Your task to perform on an android device: Show me recent news Image 0: 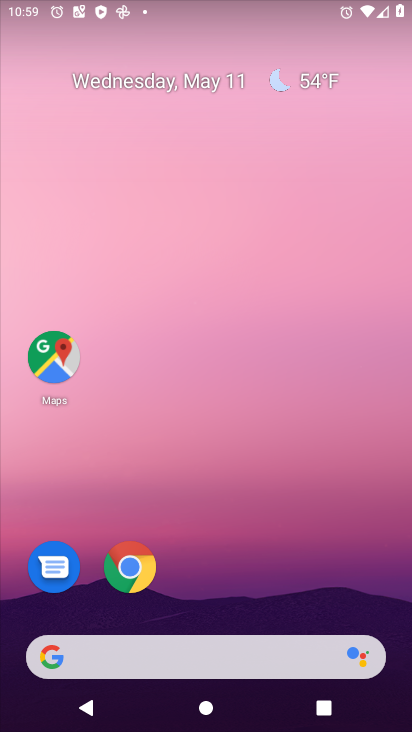
Step 0: drag from (204, 606) to (291, 12)
Your task to perform on an android device: Show me recent news Image 1: 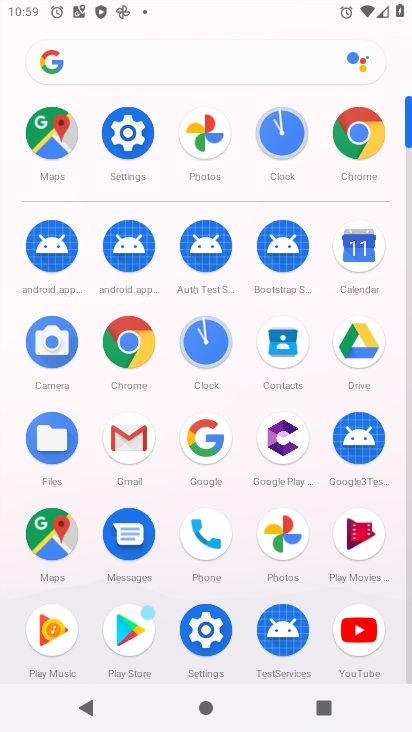
Step 1: click (172, 52)
Your task to perform on an android device: Show me recent news Image 2: 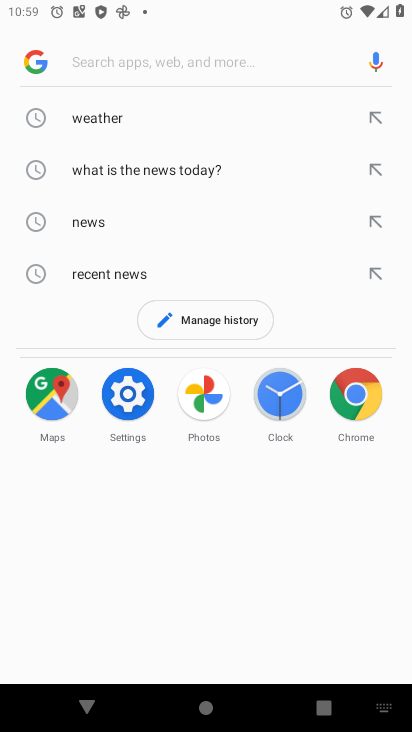
Step 2: type "recent news"
Your task to perform on an android device: Show me recent news Image 3: 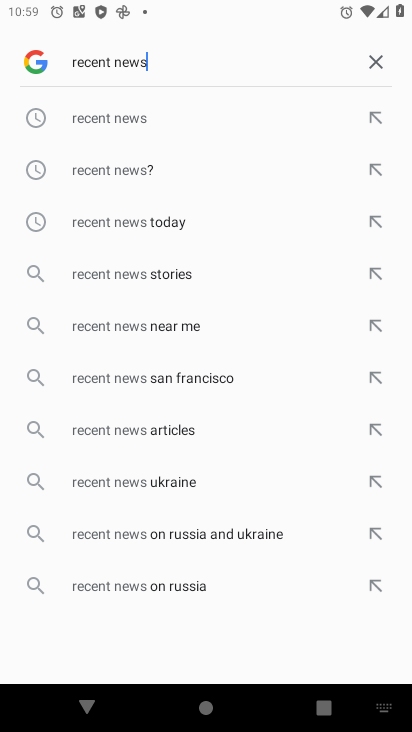
Step 3: click (143, 123)
Your task to perform on an android device: Show me recent news Image 4: 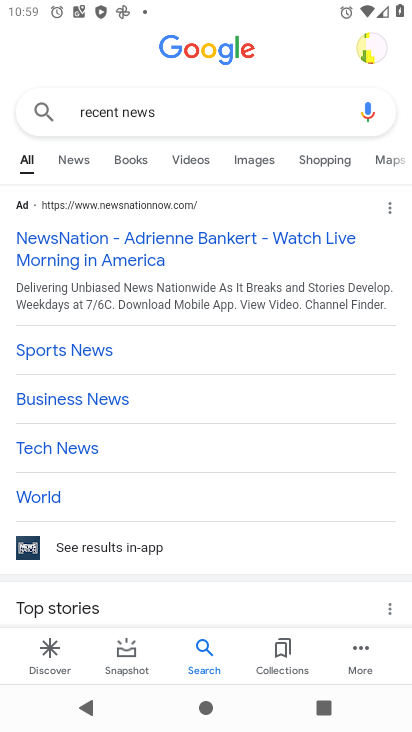
Step 4: task complete